Your task to perform on an android device: check android version Image 0: 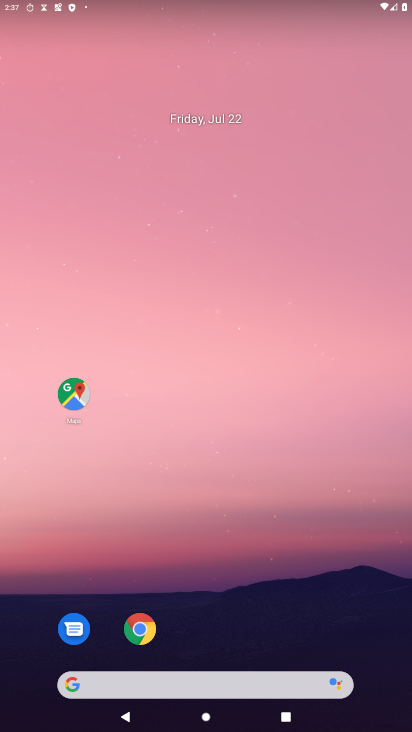
Step 0: drag from (295, 653) to (344, 93)
Your task to perform on an android device: check android version Image 1: 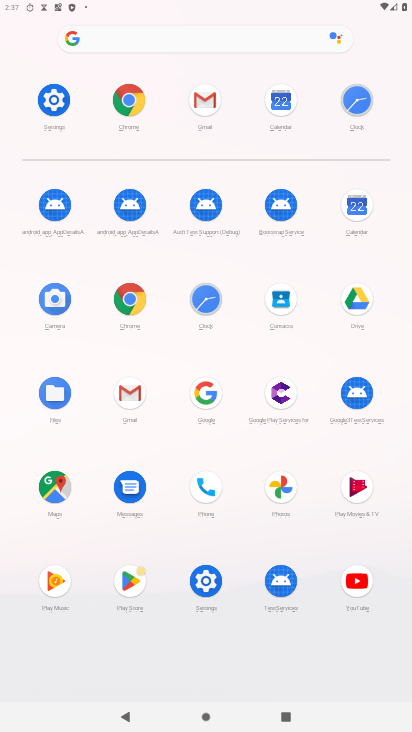
Step 1: click (57, 105)
Your task to perform on an android device: check android version Image 2: 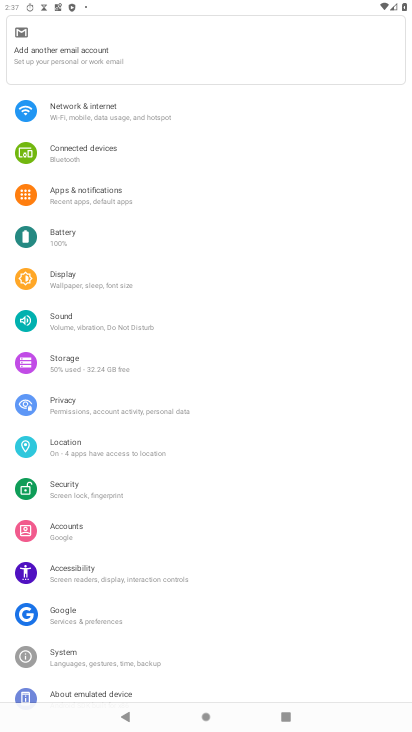
Step 2: click (112, 694)
Your task to perform on an android device: check android version Image 3: 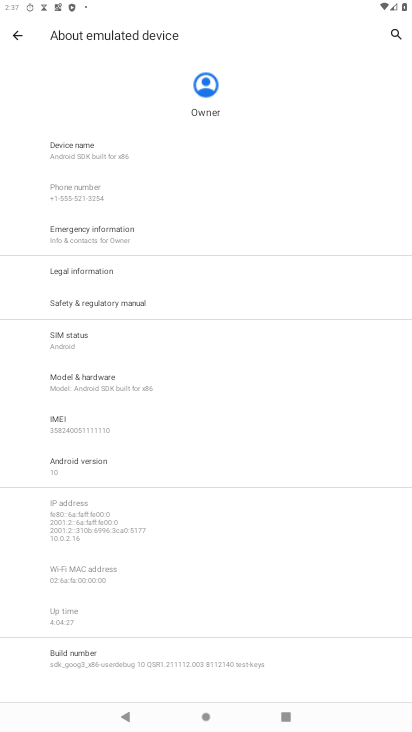
Step 3: click (91, 458)
Your task to perform on an android device: check android version Image 4: 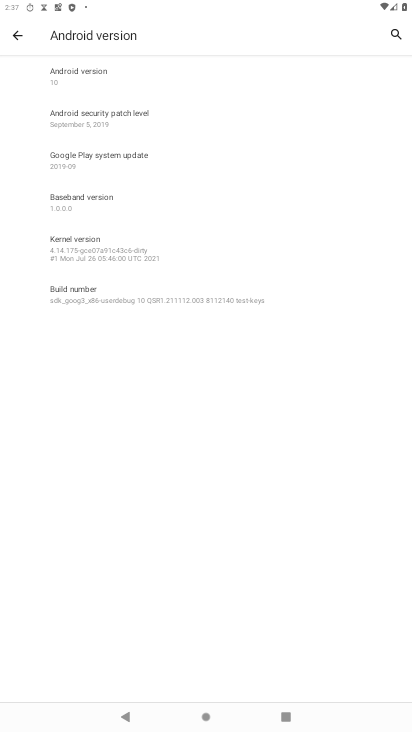
Step 4: task complete